Your task to perform on an android device: Show me the alarms in the clock app Image 0: 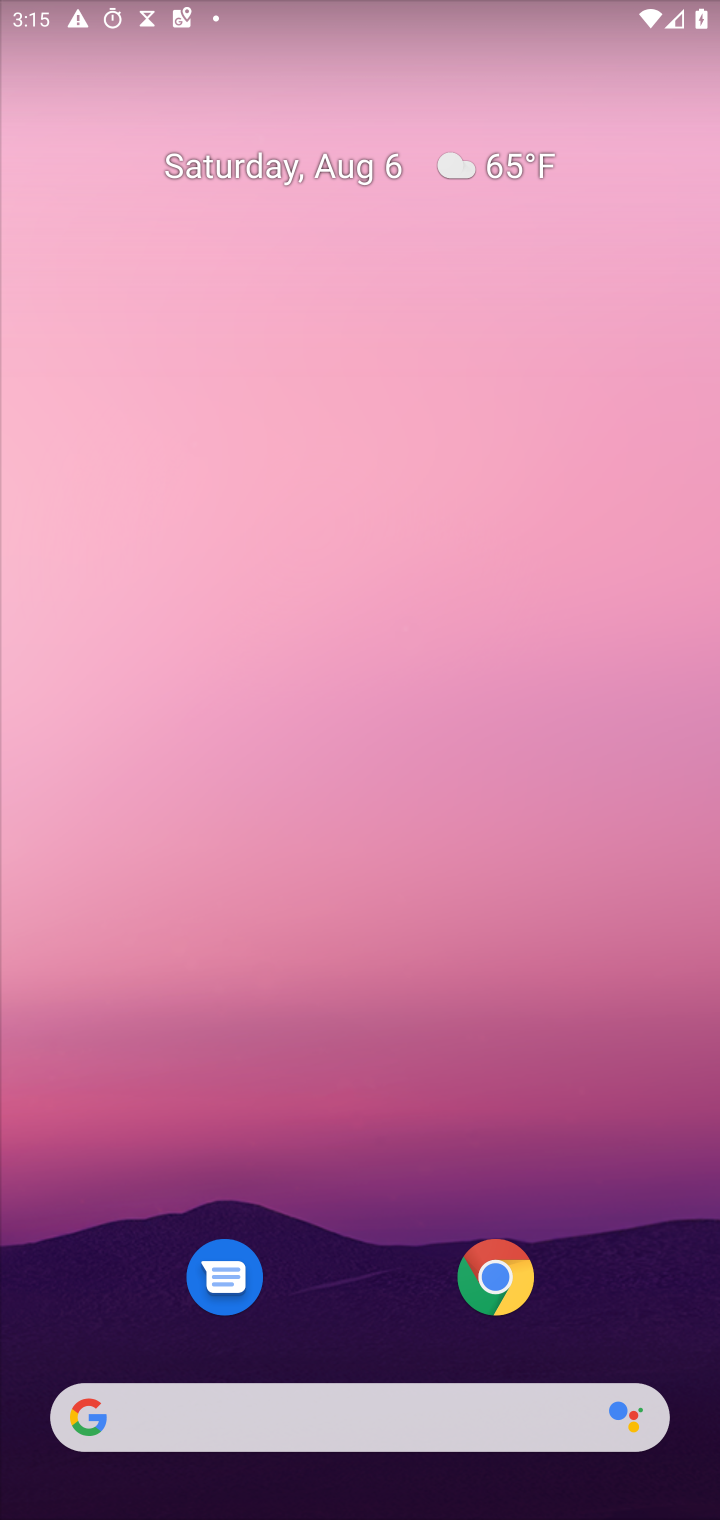
Step 0: drag from (486, 1416) to (432, 381)
Your task to perform on an android device: Show me the alarms in the clock app Image 1: 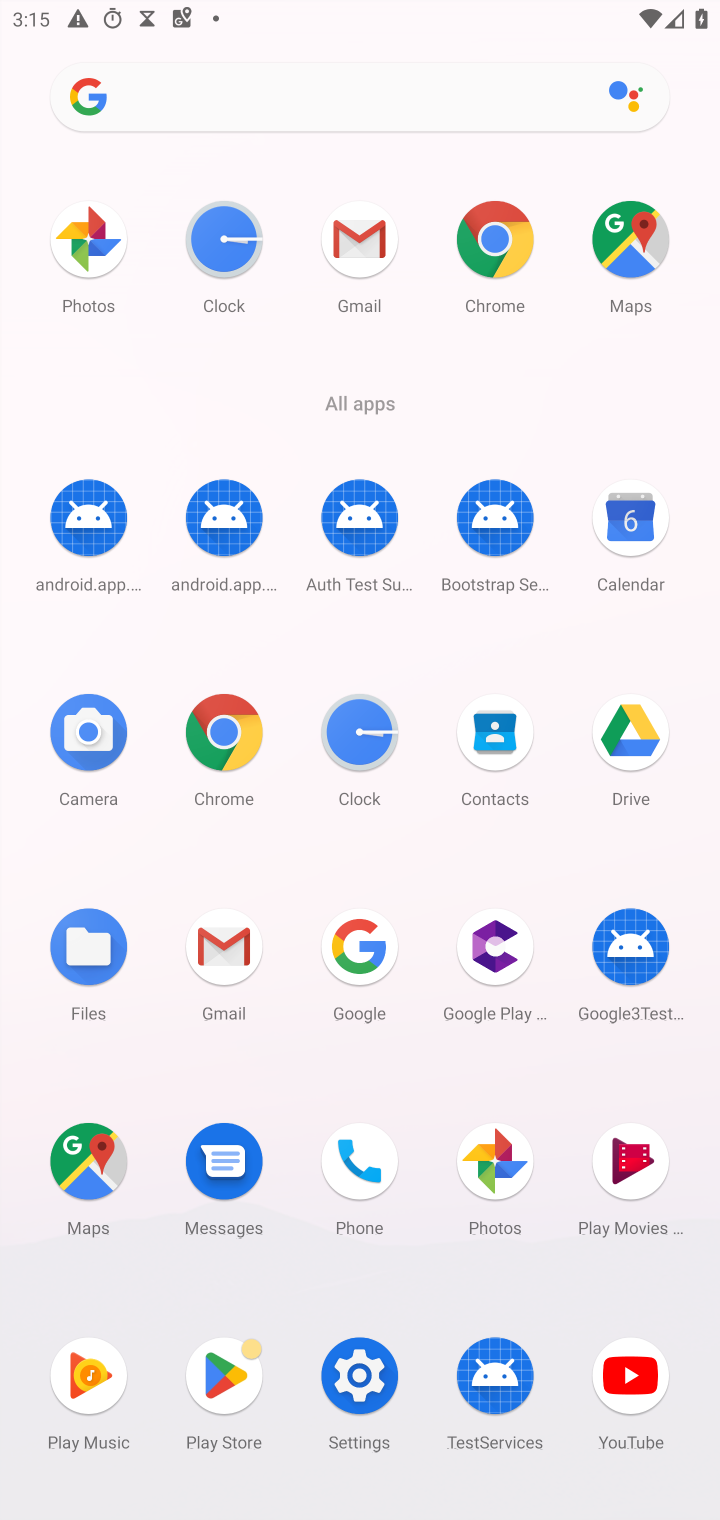
Step 1: click (364, 725)
Your task to perform on an android device: Show me the alarms in the clock app Image 2: 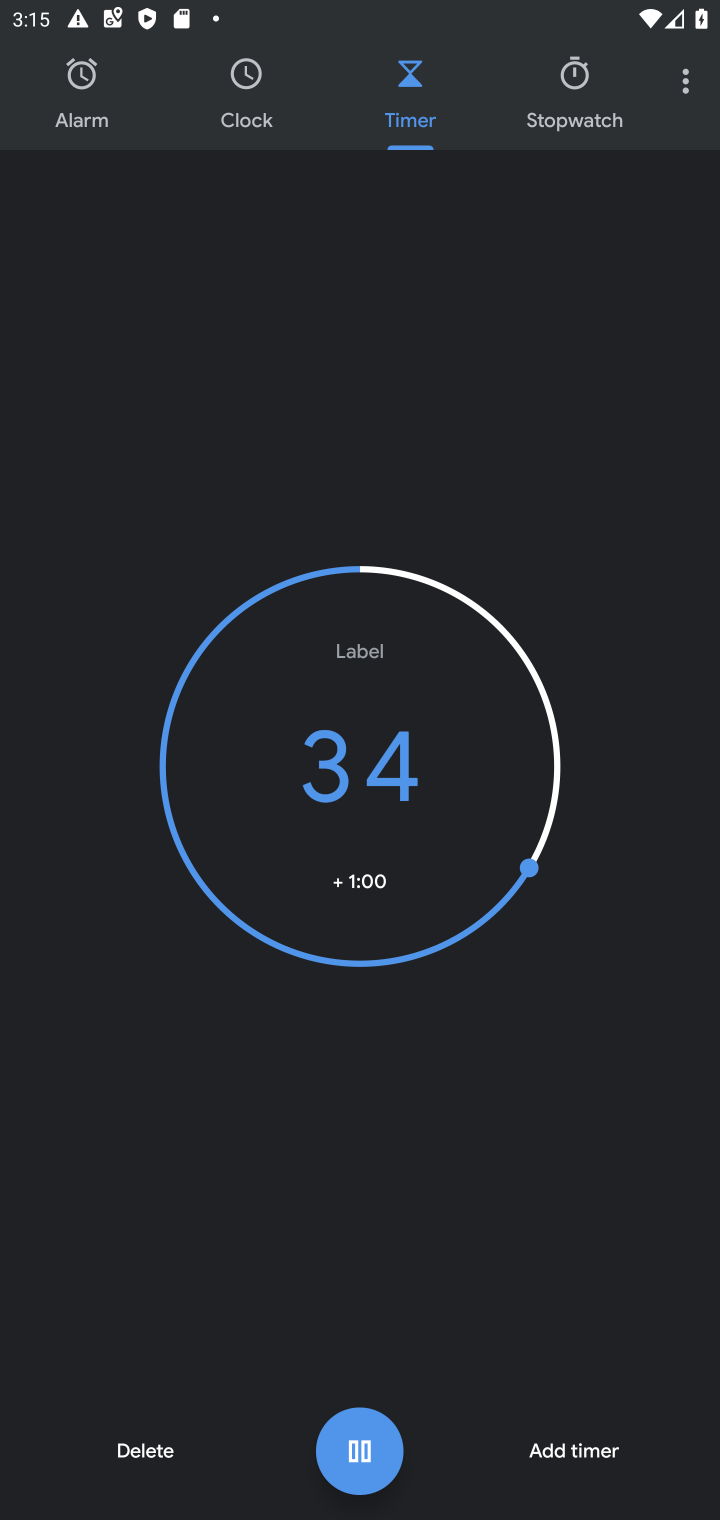
Step 2: click (123, 114)
Your task to perform on an android device: Show me the alarms in the clock app Image 3: 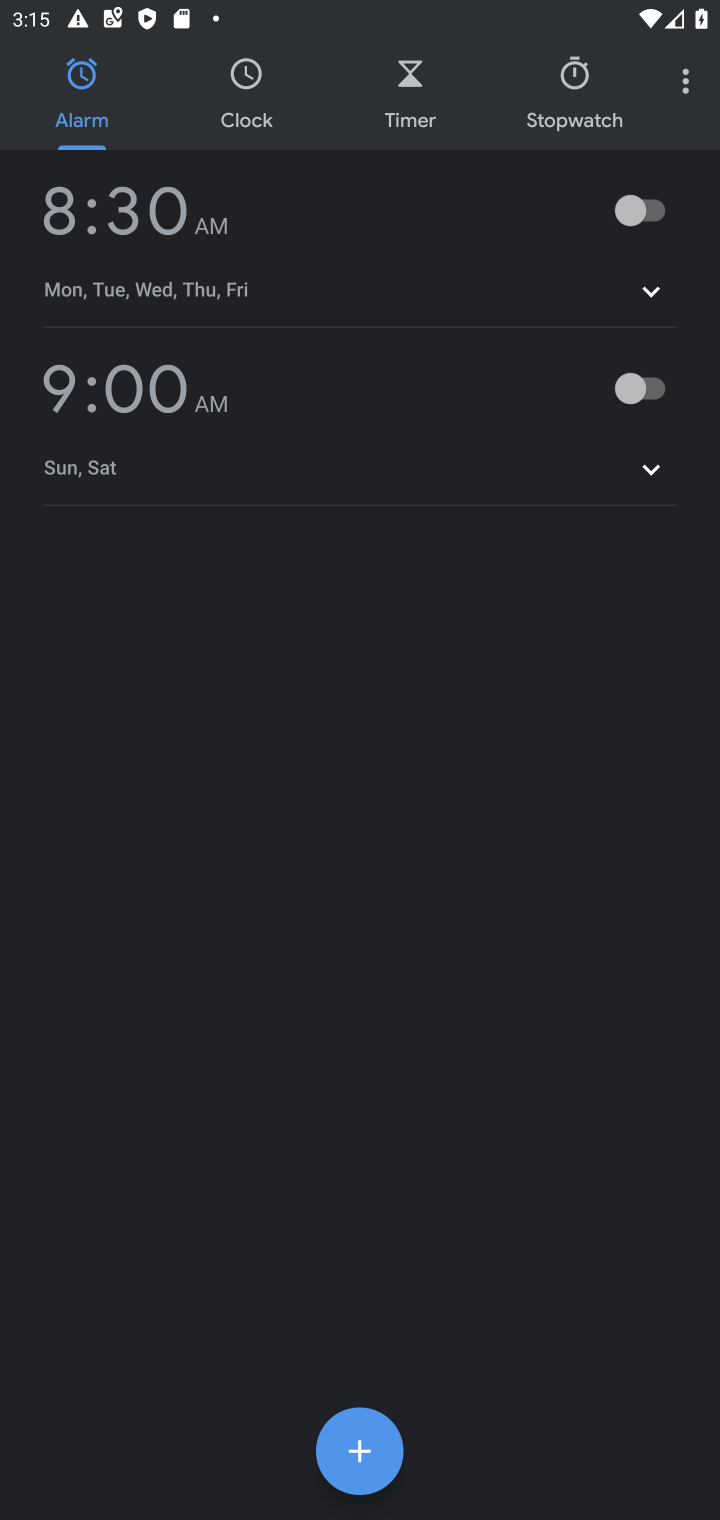
Step 3: task complete